Your task to perform on an android device: allow notifications from all sites in the chrome app Image 0: 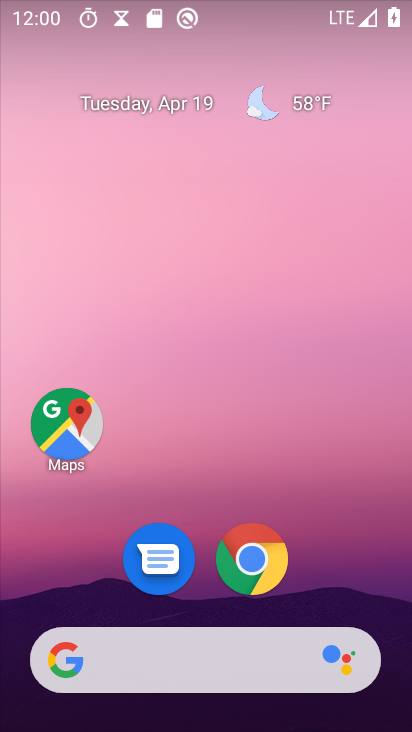
Step 0: click (282, 573)
Your task to perform on an android device: allow notifications from all sites in the chrome app Image 1: 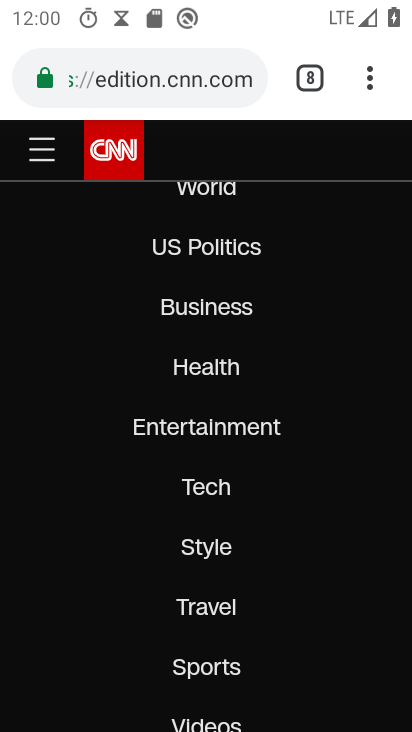
Step 1: click (365, 82)
Your task to perform on an android device: allow notifications from all sites in the chrome app Image 2: 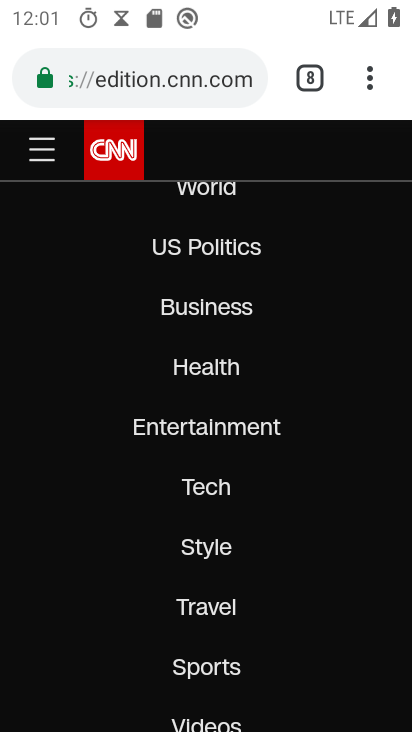
Step 2: click (369, 79)
Your task to perform on an android device: allow notifications from all sites in the chrome app Image 3: 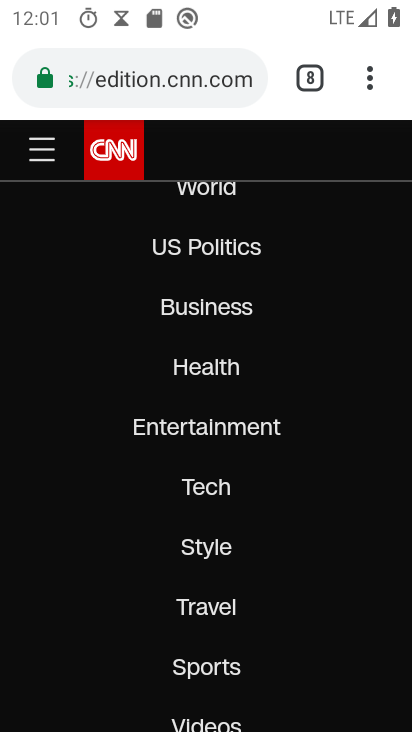
Step 3: click (369, 78)
Your task to perform on an android device: allow notifications from all sites in the chrome app Image 4: 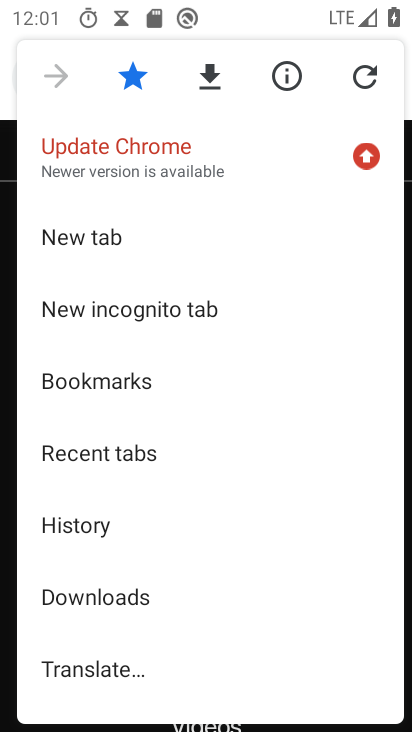
Step 4: drag from (112, 667) to (131, 243)
Your task to perform on an android device: allow notifications from all sites in the chrome app Image 5: 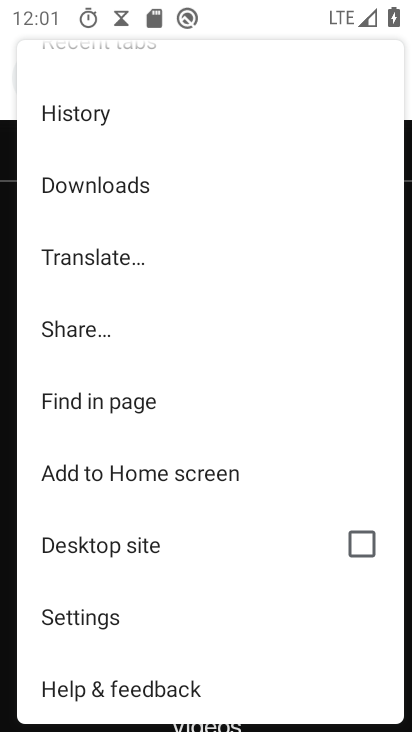
Step 5: click (110, 627)
Your task to perform on an android device: allow notifications from all sites in the chrome app Image 6: 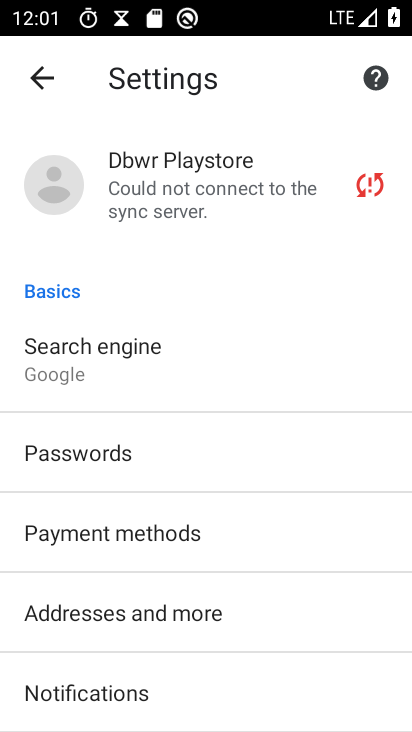
Step 6: click (107, 693)
Your task to perform on an android device: allow notifications from all sites in the chrome app Image 7: 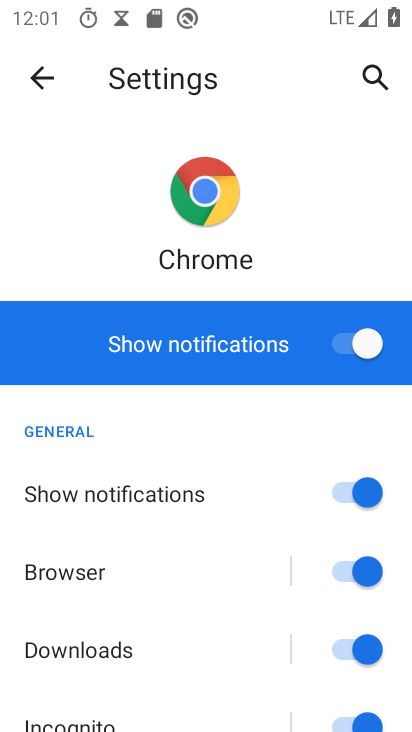
Step 7: drag from (169, 653) to (172, 257)
Your task to perform on an android device: allow notifications from all sites in the chrome app Image 8: 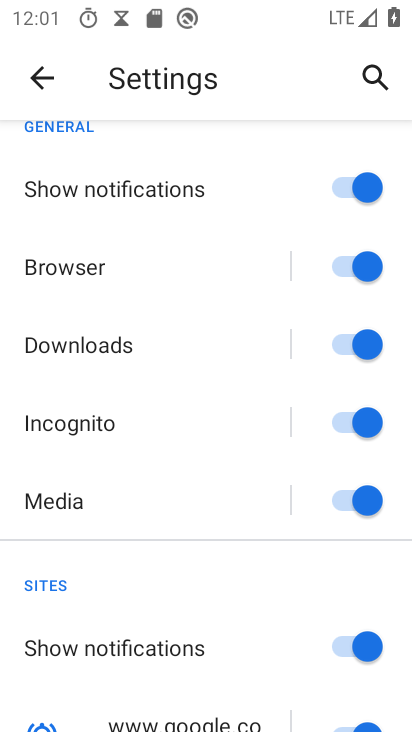
Step 8: drag from (159, 682) to (146, 387)
Your task to perform on an android device: allow notifications from all sites in the chrome app Image 9: 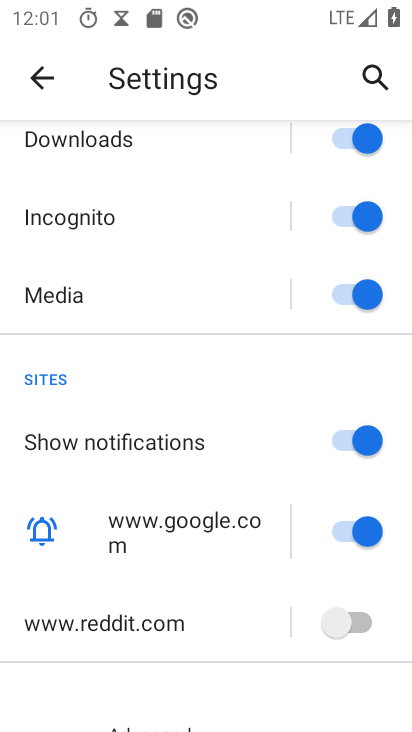
Step 9: click (340, 623)
Your task to perform on an android device: allow notifications from all sites in the chrome app Image 10: 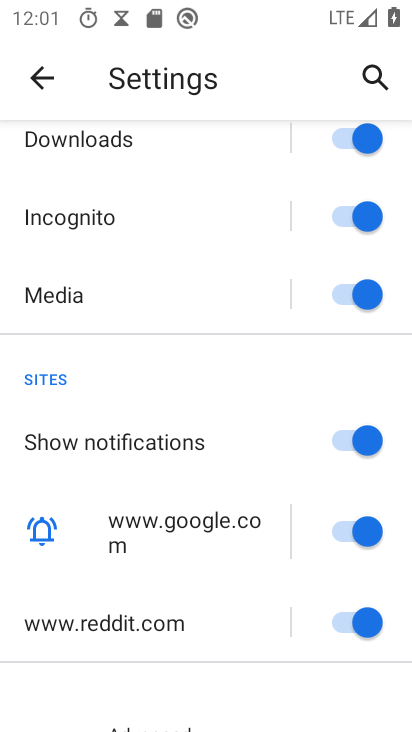
Step 10: task complete